Your task to perform on an android device: uninstall "Roku - Official Remote Control" Image 0: 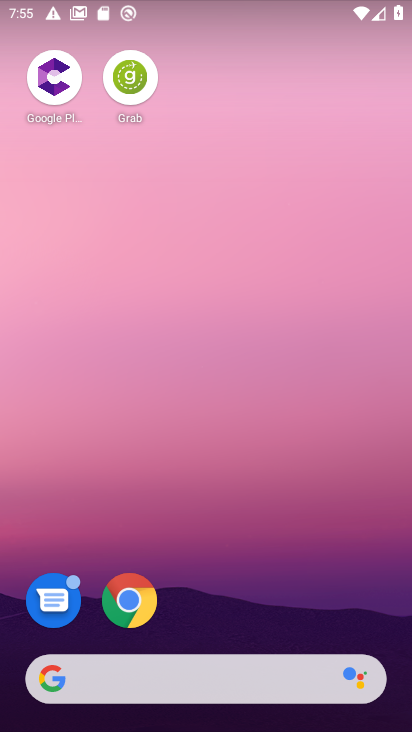
Step 0: press home button
Your task to perform on an android device: uninstall "Roku - Official Remote Control" Image 1: 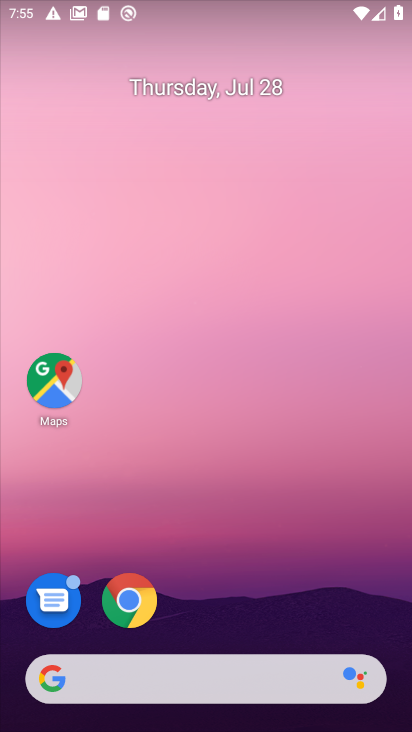
Step 1: drag from (184, 677) to (274, 153)
Your task to perform on an android device: uninstall "Roku - Official Remote Control" Image 2: 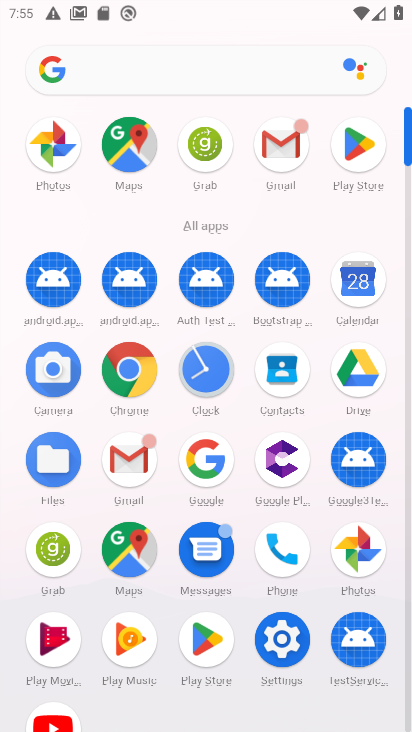
Step 2: click (356, 145)
Your task to perform on an android device: uninstall "Roku - Official Remote Control" Image 3: 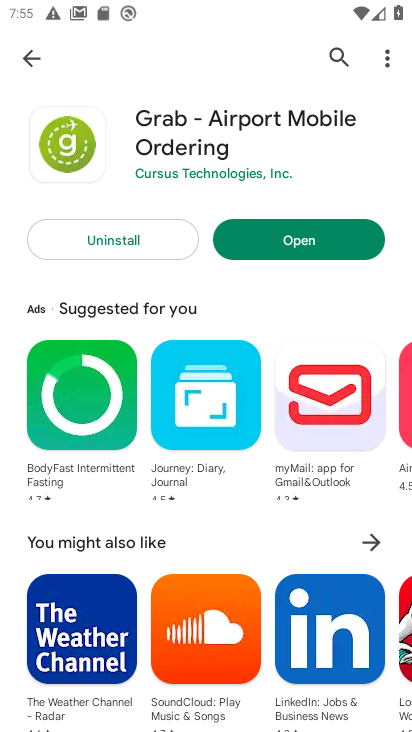
Step 3: click (31, 54)
Your task to perform on an android device: uninstall "Roku - Official Remote Control" Image 4: 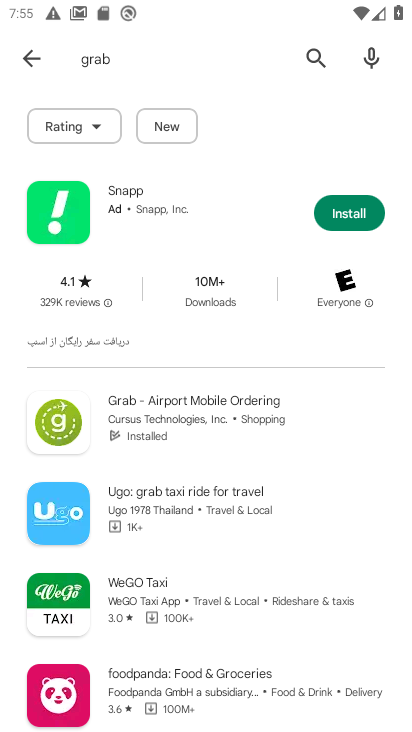
Step 4: click (311, 52)
Your task to perform on an android device: uninstall "Roku - Official Remote Control" Image 5: 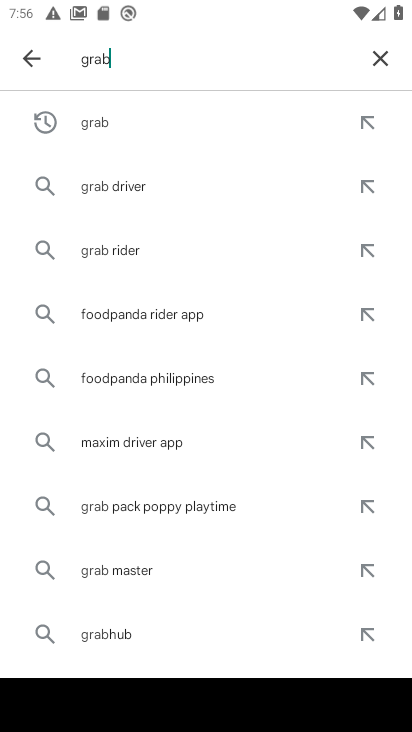
Step 5: click (379, 58)
Your task to perform on an android device: uninstall "Roku - Official Remote Control" Image 6: 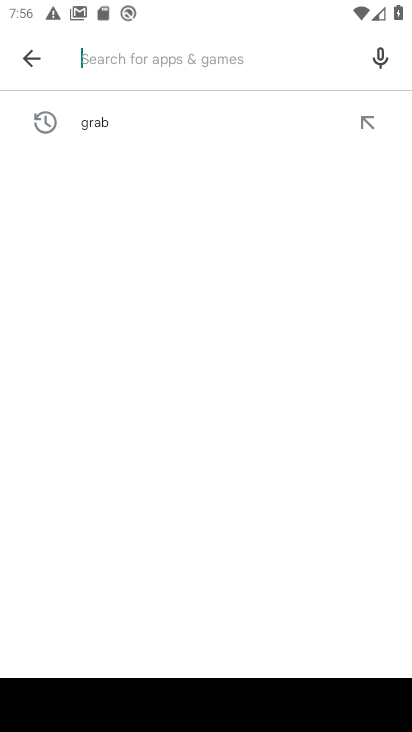
Step 6: type "Roku - Official Remote Control"
Your task to perform on an android device: uninstall "Roku - Official Remote Control" Image 7: 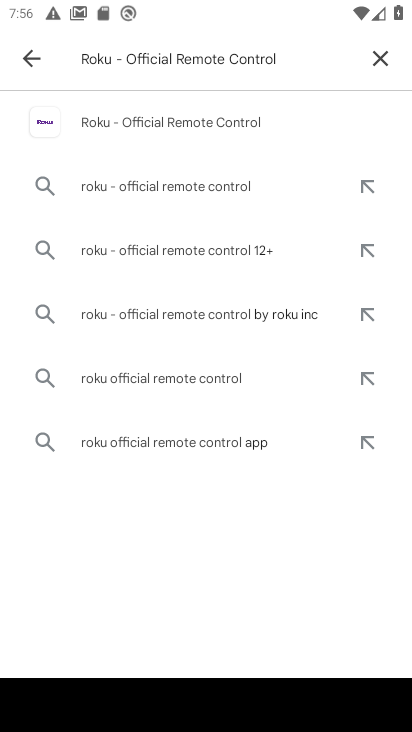
Step 7: click (205, 116)
Your task to perform on an android device: uninstall "Roku - Official Remote Control" Image 8: 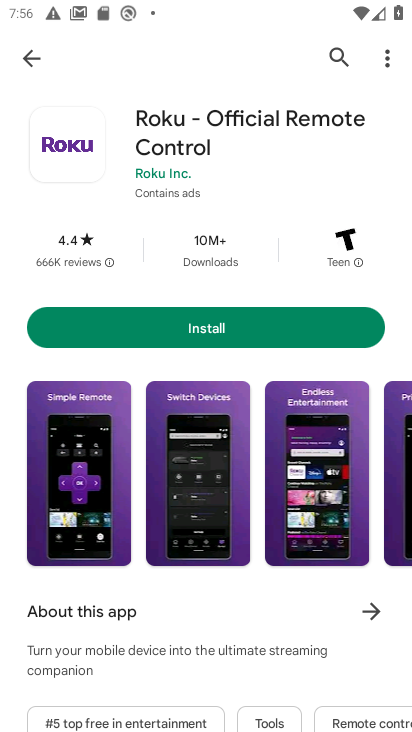
Step 8: task complete